Your task to perform on an android device: Go to display settings Image 0: 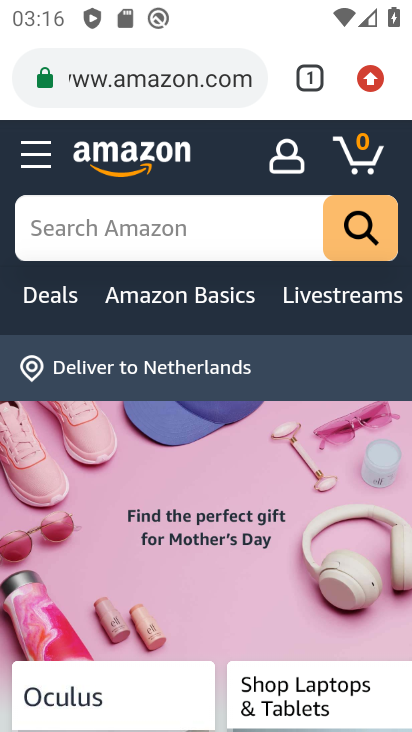
Step 0: press home button
Your task to perform on an android device: Go to display settings Image 1: 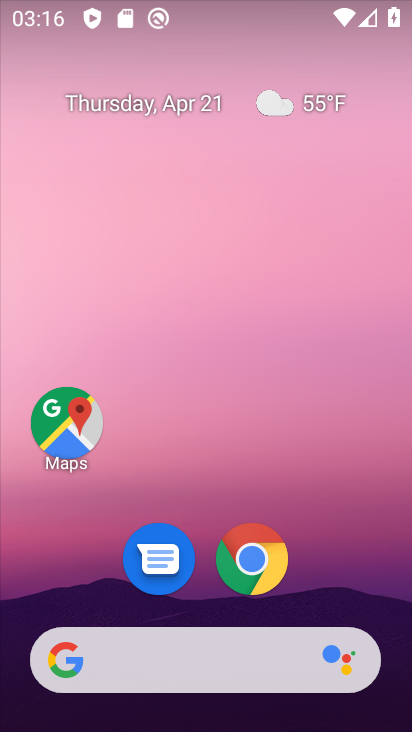
Step 1: drag from (356, 591) to (293, 49)
Your task to perform on an android device: Go to display settings Image 2: 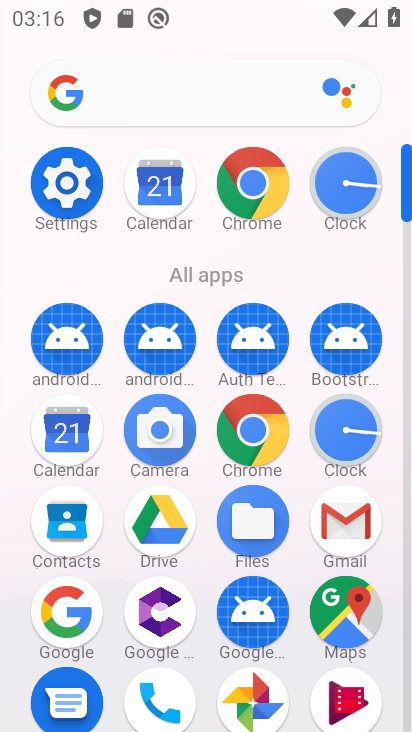
Step 2: drag from (200, 290) to (176, 141)
Your task to perform on an android device: Go to display settings Image 3: 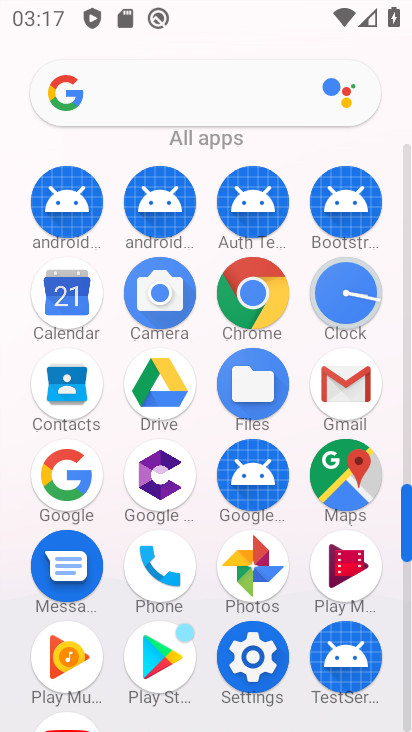
Step 3: drag from (200, 541) to (199, 202)
Your task to perform on an android device: Go to display settings Image 4: 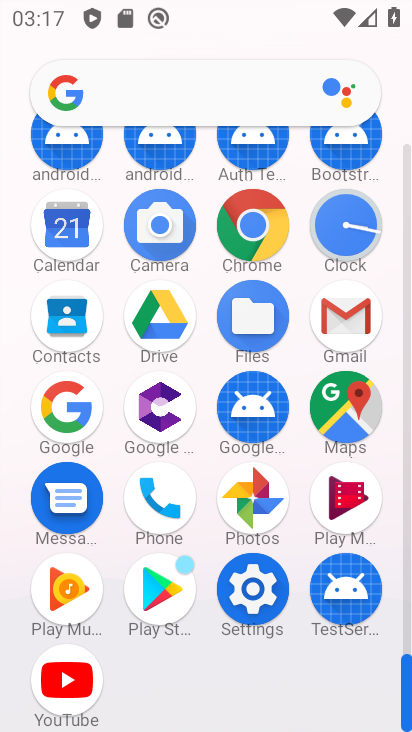
Step 4: click (240, 598)
Your task to perform on an android device: Go to display settings Image 5: 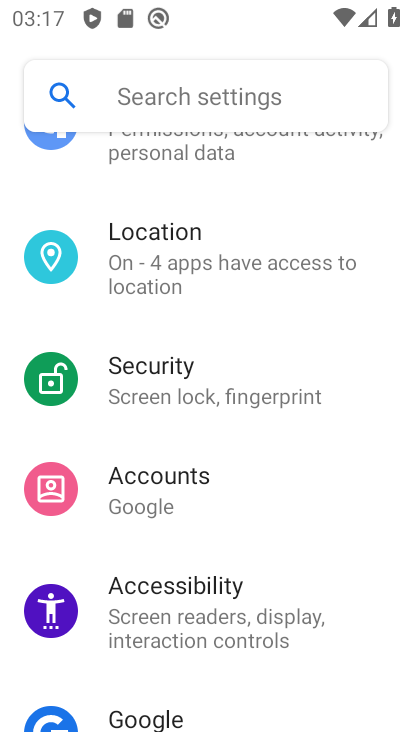
Step 5: drag from (175, 332) to (112, 615)
Your task to perform on an android device: Go to display settings Image 6: 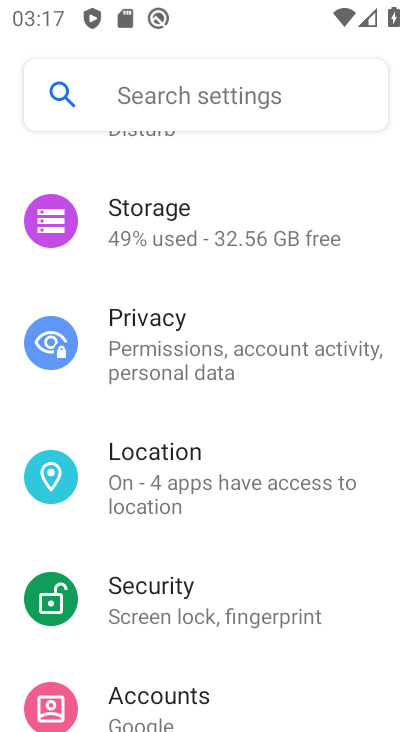
Step 6: drag from (158, 199) to (134, 642)
Your task to perform on an android device: Go to display settings Image 7: 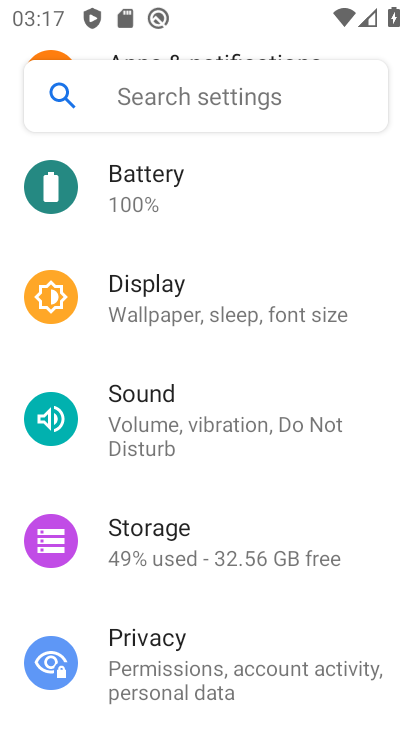
Step 7: click (148, 311)
Your task to perform on an android device: Go to display settings Image 8: 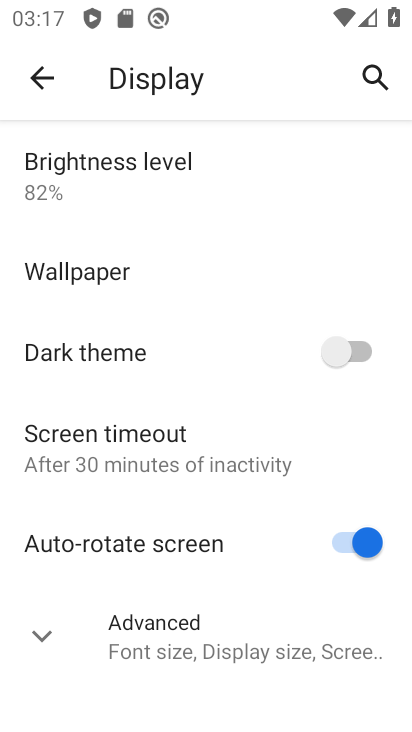
Step 8: task complete